Your task to perform on an android device: Go to CNN.com Image 0: 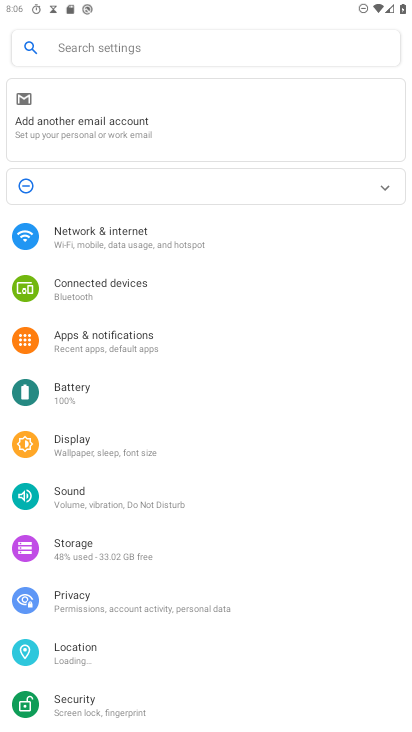
Step 0: press home button
Your task to perform on an android device: Go to CNN.com Image 1: 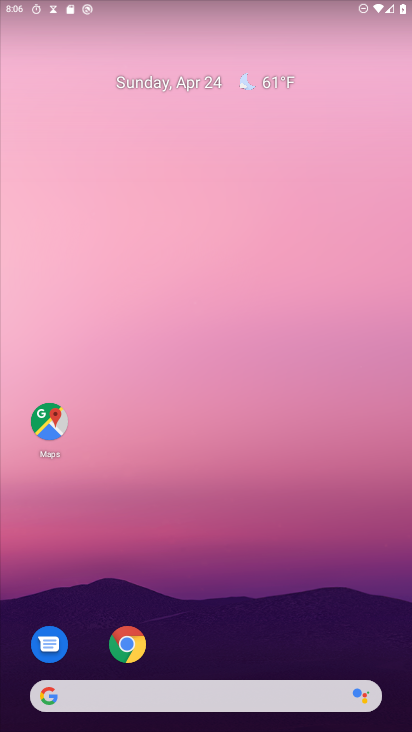
Step 1: click (117, 639)
Your task to perform on an android device: Go to CNN.com Image 2: 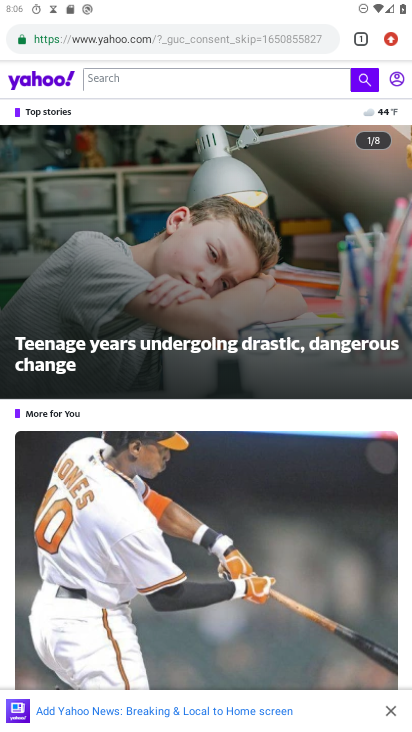
Step 2: click (237, 35)
Your task to perform on an android device: Go to CNN.com Image 3: 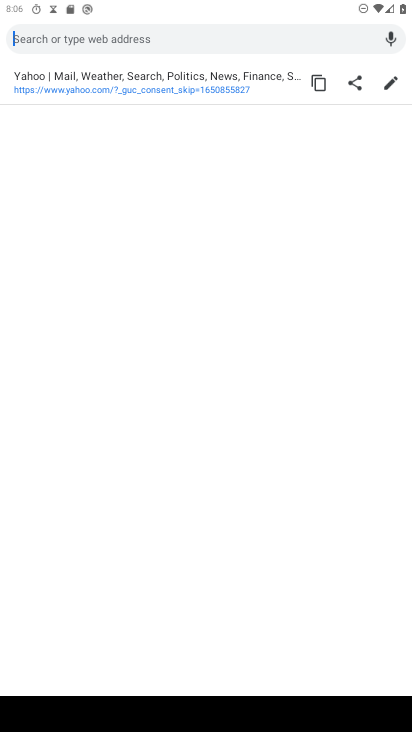
Step 3: type "cnn.com"
Your task to perform on an android device: Go to CNN.com Image 4: 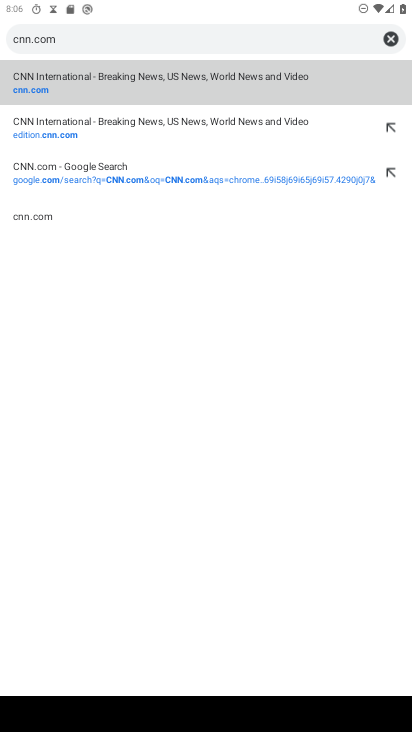
Step 4: click (100, 87)
Your task to perform on an android device: Go to CNN.com Image 5: 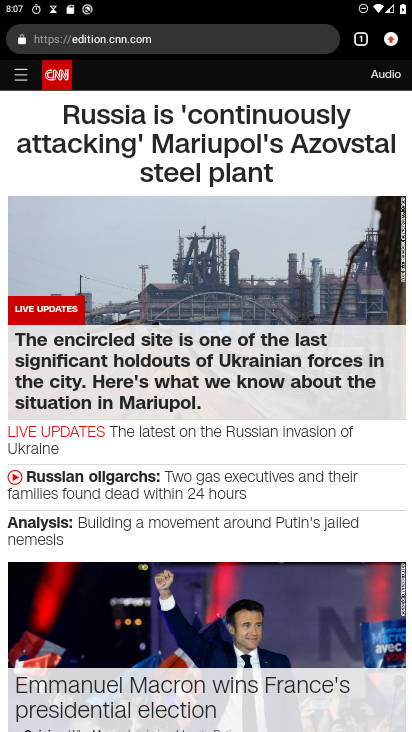
Step 5: task complete